Your task to perform on an android device: Go to location settings Image 0: 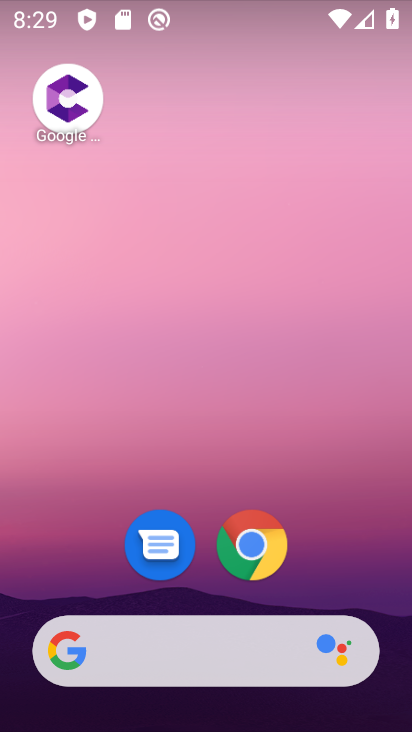
Step 0: drag from (366, 589) to (279, 10)
Your task to perform on an android device: Go to location settings Image 1: 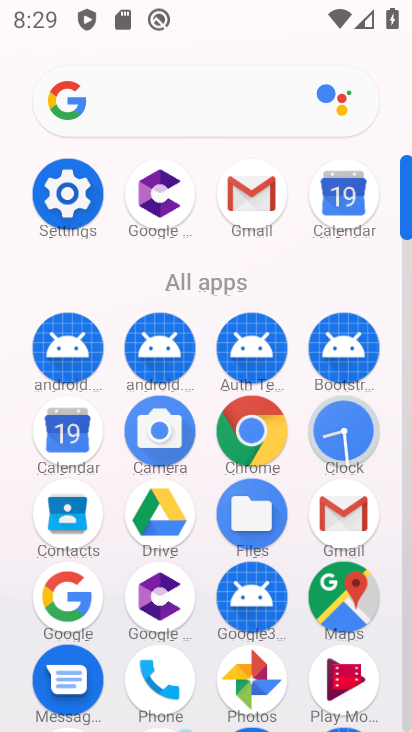
Step 1: click (84, 177)
Your task to perform on an android device: Go to location settings Image 2: 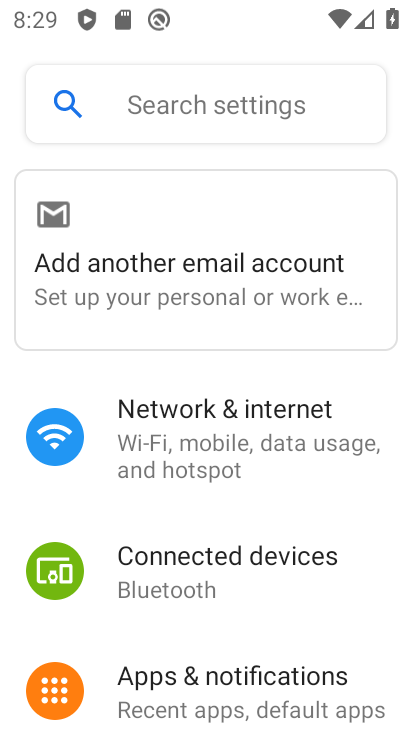
Step 2: drag from (228, 601) to (255, 310)
Your task to perform on an android device: Go to location settings Image 3: 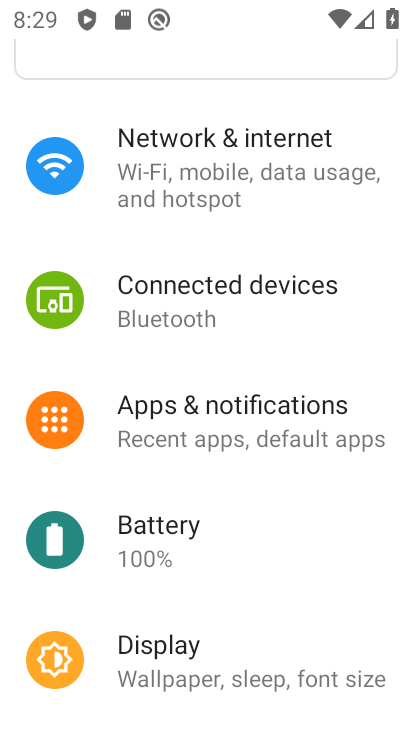
Step 3: drag from (223, 633) to (234, 491)
Your task to perform on an android device: Go to location settings Image 4: 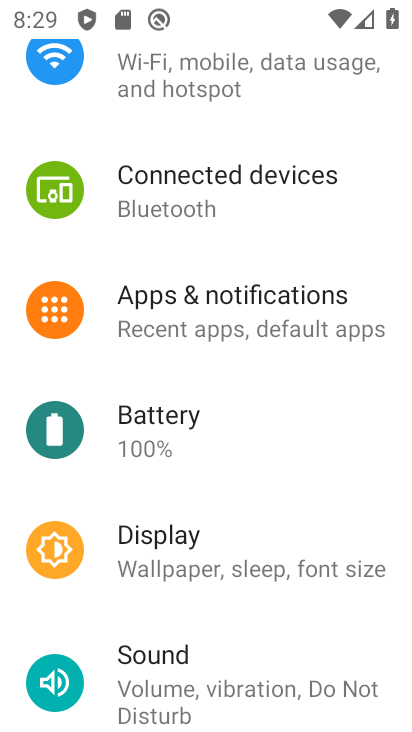
Step 4: drag from (158, 664) to (216, 452)
Your task to perform on an android device: Go to location settings Image 5: 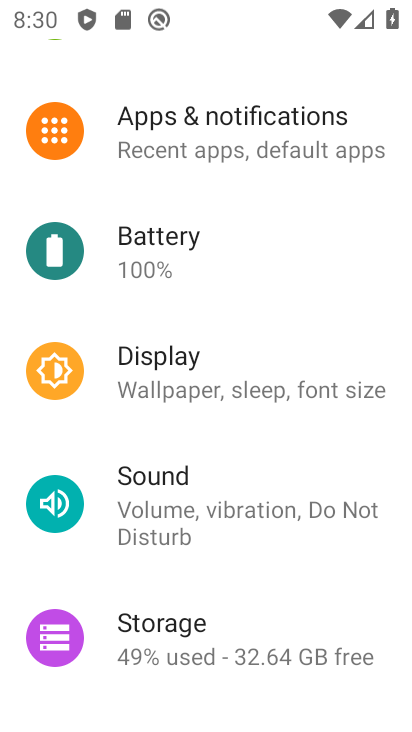
Step 5: drag from (237, 614) to (259, 271)
Your task to perform on an android device: Go to location settings Image 6: 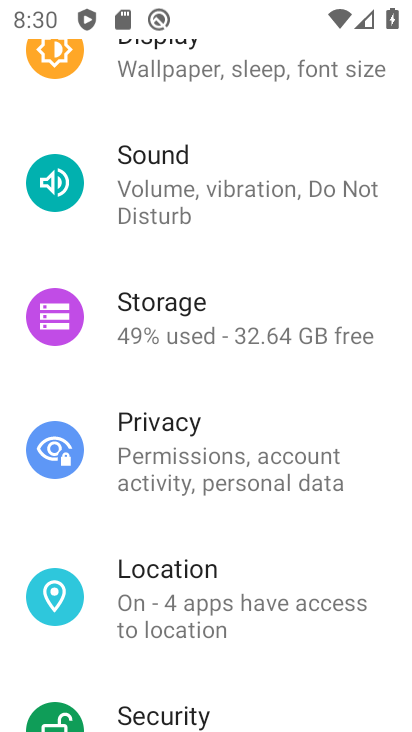
Step 6: click (248, 607)
Your task to perform on an android device: Go to location settings Image 7: 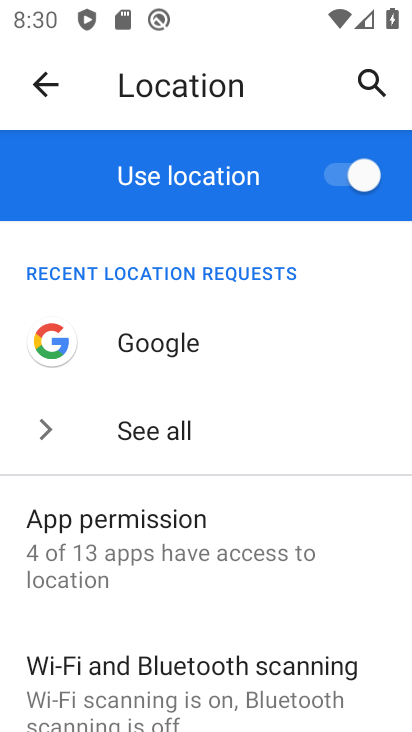
Step 7: task complete